Your task to perform on an android device: Open privacy settings Image 0: 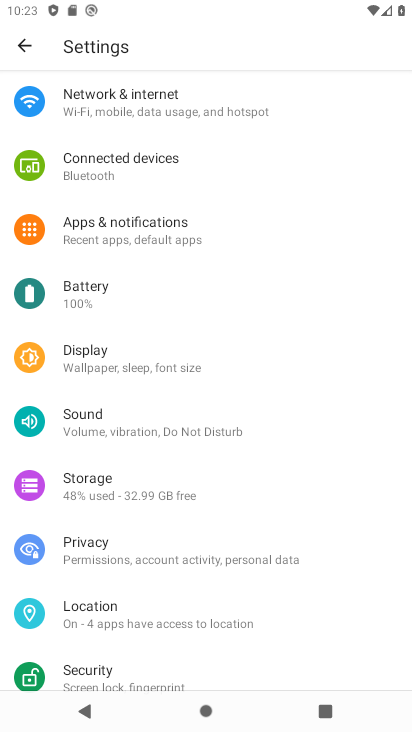
Step 0: click (124, 551)
Your task to perform on an android device: Open privacy settings Image 1: 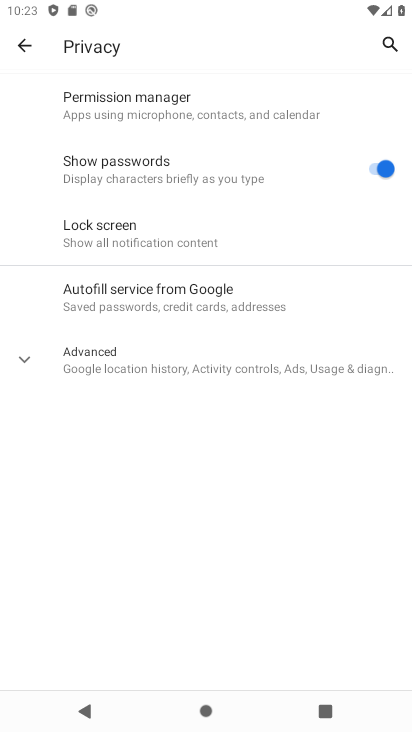
Step 1: task complete